Your task to perform on an android device: add a label to a message in the gmail app Image 0: 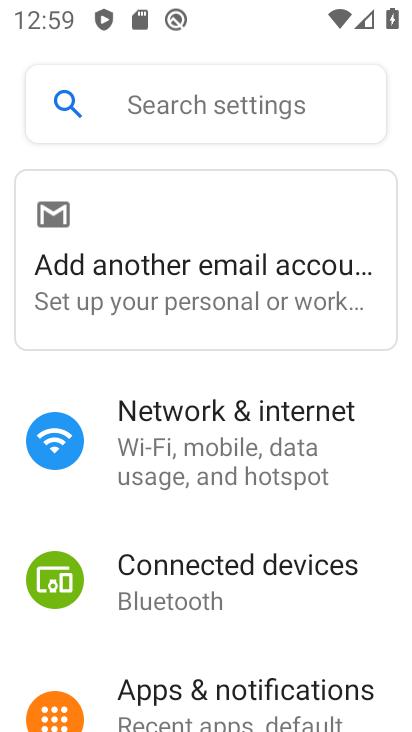
Step 0: drag from (233, 561) to (240, 373)
Your task to perform on an android device: add a label to a message in the gmail app Image 1: 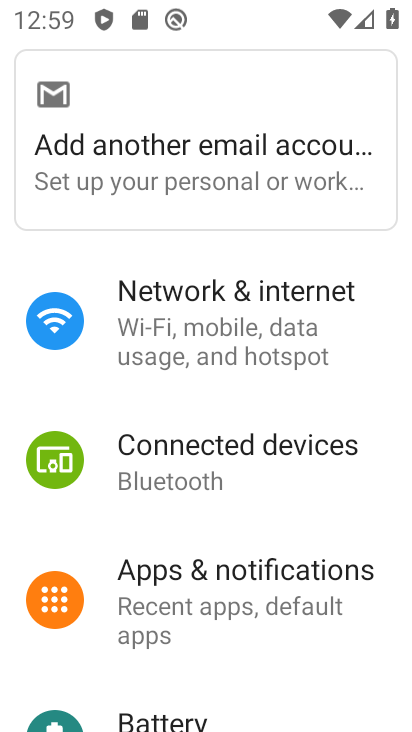
Step 1: press back button
Your task to perform on an android device: add a label to a message in the gmail app Image 2: 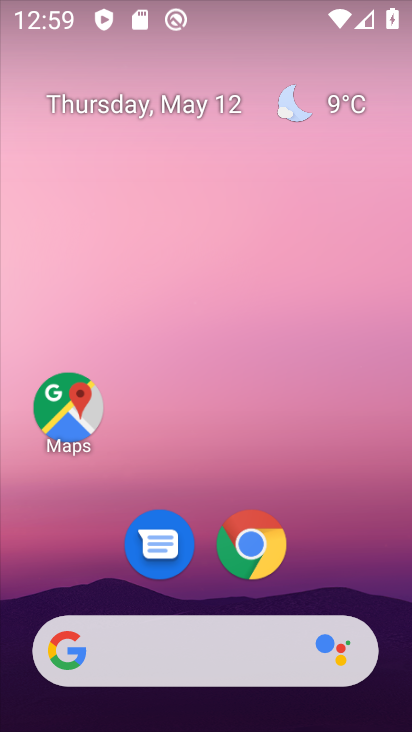
Step 2: drag from (307, 534) to (239, 29)
Your task to perform on an android device: add a label to a message in the gmail app Image 3: 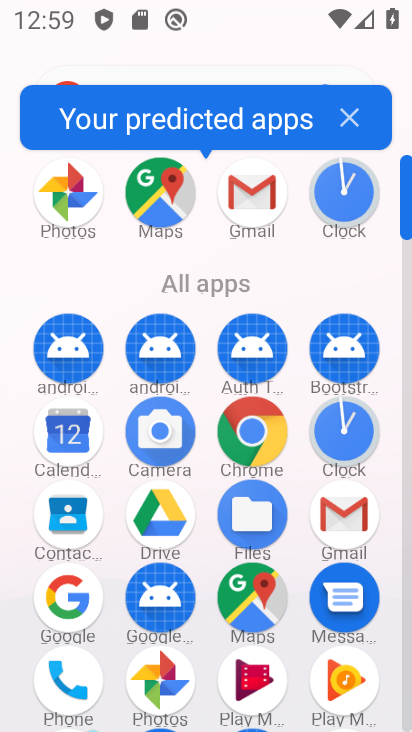
Step 3: drag from (8, 461) to (10, 199)
Your task to perform on an android device: add a label to a message in the gmail app Image 4: 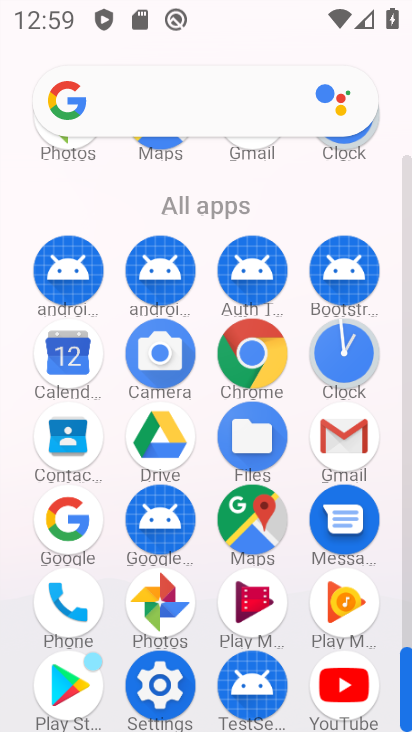
Step 4: click (339, 431)
Your task to perform on an android device: add a label to a message in the gmail app Image 5: 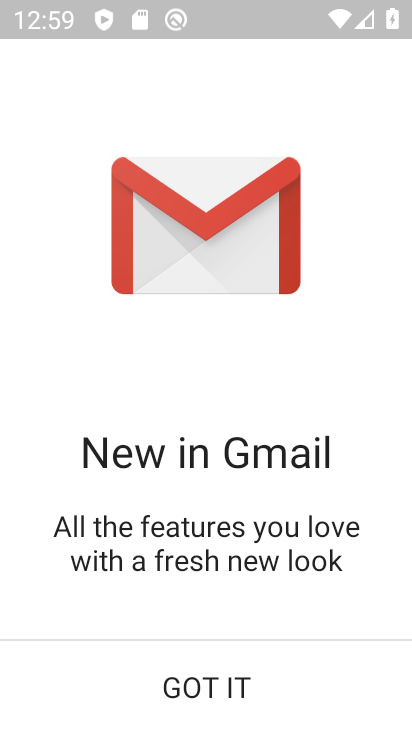
Step 5: click (189, 686)
Your task to perform on an android device: add a label to a message in the gmail app Image 6: 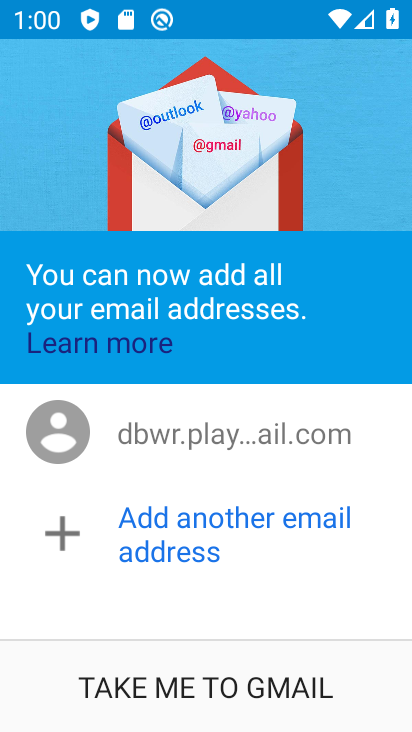
Step 6: click (203, 685)
Your task to perform on an android device: add a label to a message in the gmail app Image 7: 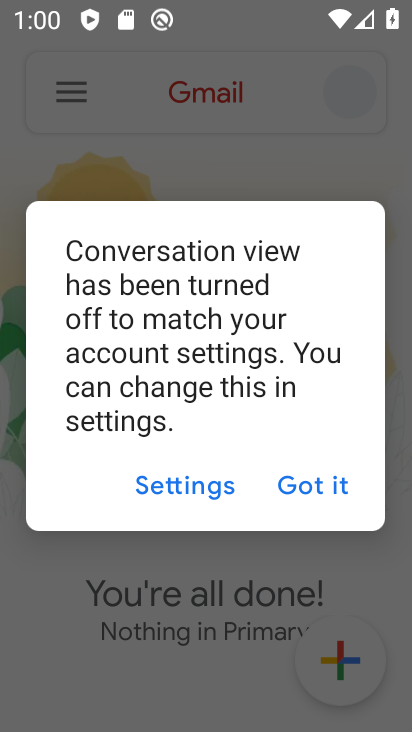
Step 7: click (319, 484)
Your task to perform on an android device: add a label to a message in the gmail app Image 8: 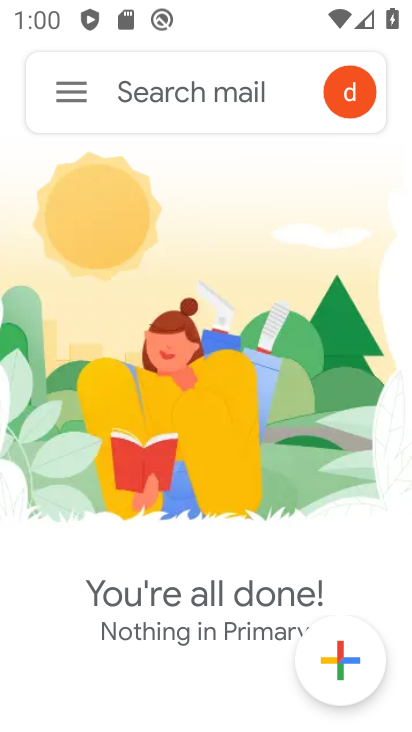
Step 8: click (57, 91)
Your task to perform on an android device: add a label to a message in the gmail app Image 9: 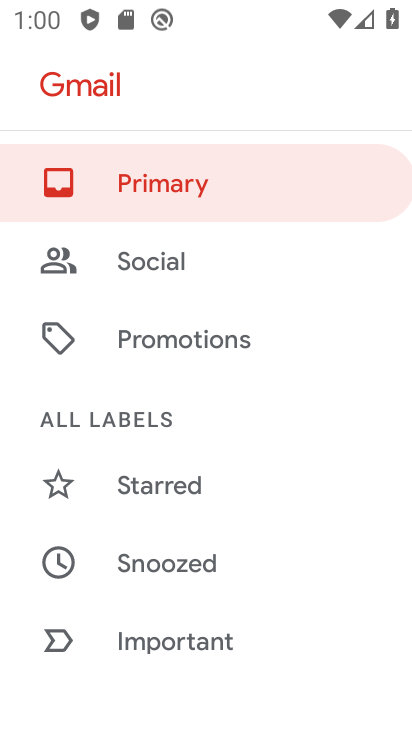
Step 9: drag from (176, 414) to (194, 185)
Your task to perform on an android device: add a label to a message in the gmail app Image 10: 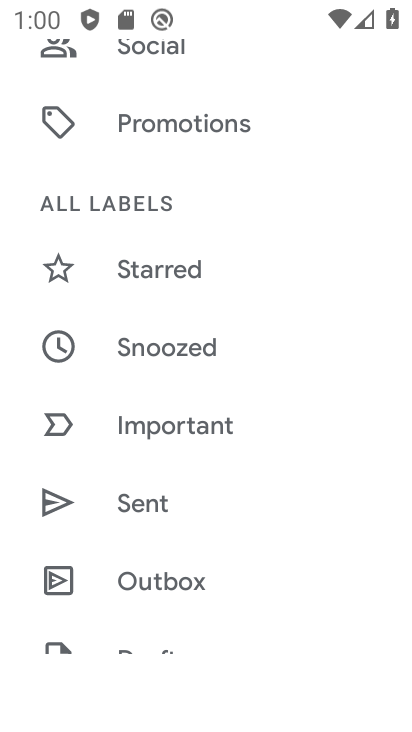
Step 10: drag from (167, 592) to (238, 138)
Your task to perform on an android device: add a label to a message in the gmail app Image 11: 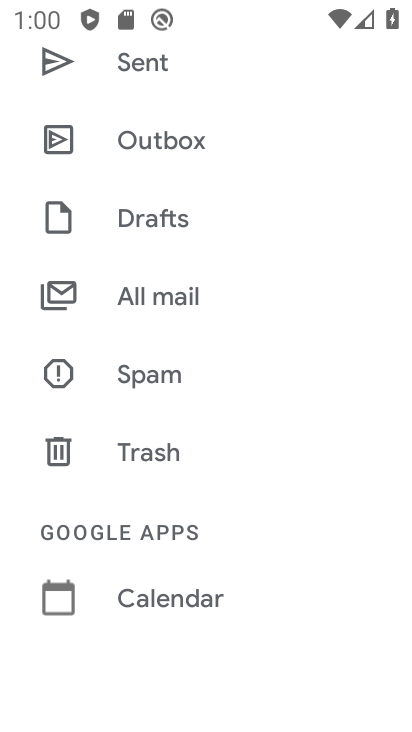
Step 11: click (168, 301)
Your task to perform on an android device: add a label to a message in the gmail app Image 12: 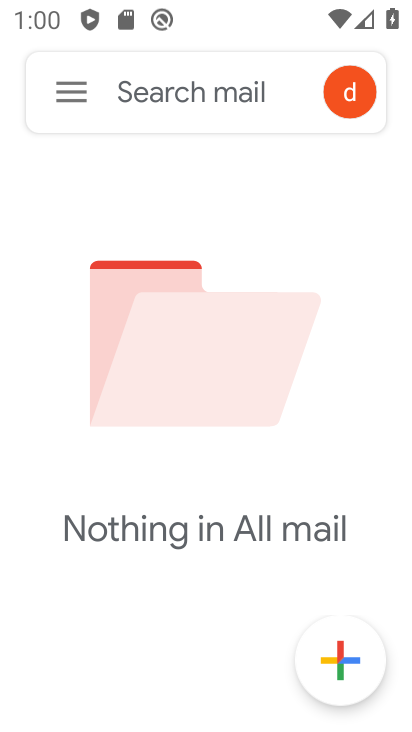
Step 12: task complete